Your task to perform on an android device: add a label to a message in the gmail app Image 0: 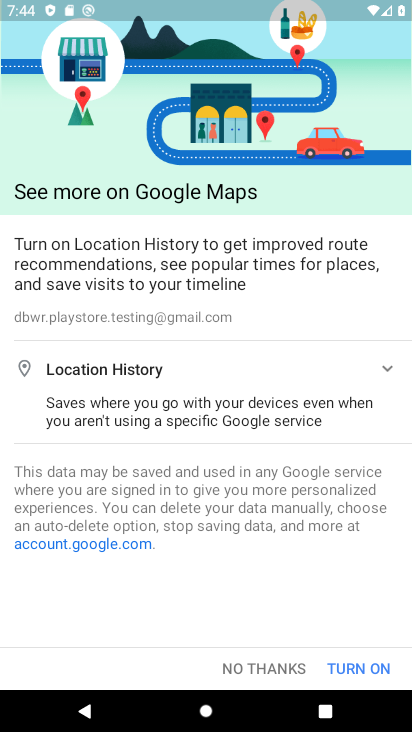
Step 0: press home button
Your task to perform on an android device: add a label to a message in the gmail app Image 1: 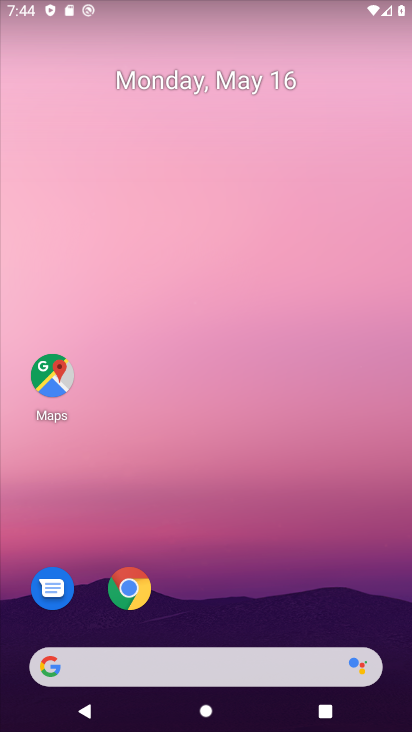
Step 1: drag from (362, 596) to (379, 105)
Your task to perform on an android device: add a label to a message in the gmail app Image 2: 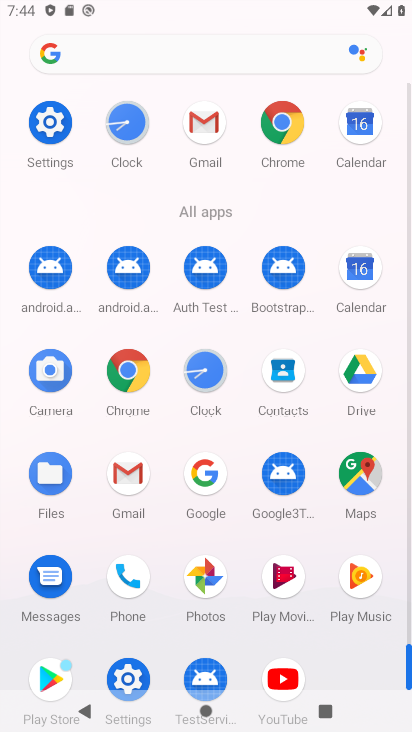
Step 2: click (125, 486)
Your task to perform on an android device: add a label to a message in the gmail app Image 3: 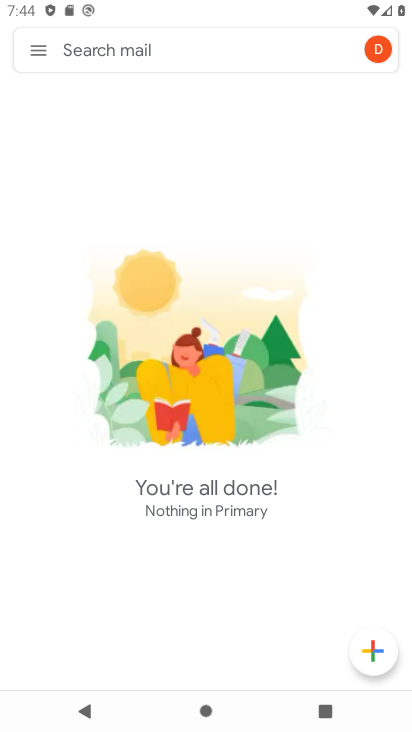
Step 3: click (35, 53)
Your task to perform on an android device: add a label to a message in the gmail app Image 4: 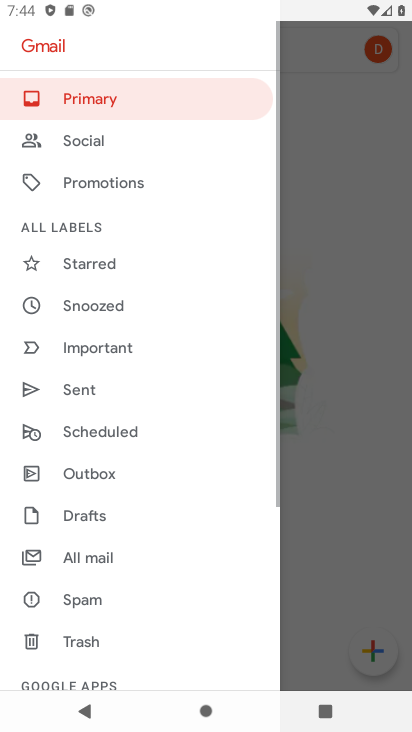
Step 4: drag from (200, 568) to (221, 405)
Your task to perform on an android device: add a label to a message in the gmail app Image 5: 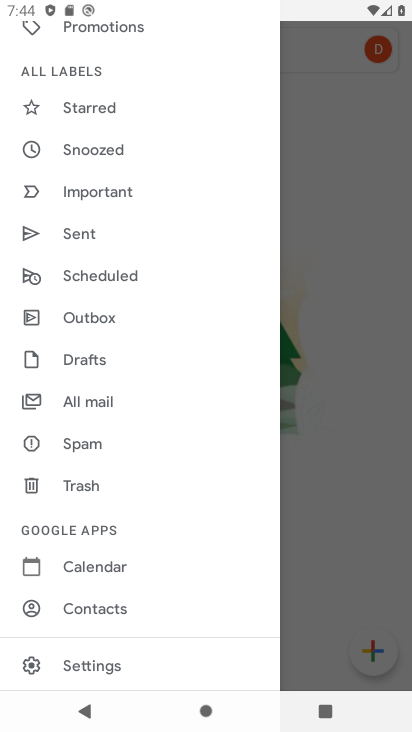
Step 5: drag from (213, 612) to (213, 448)
Your task to perform on an android device: add a label to a message in the gmail app Image 6: 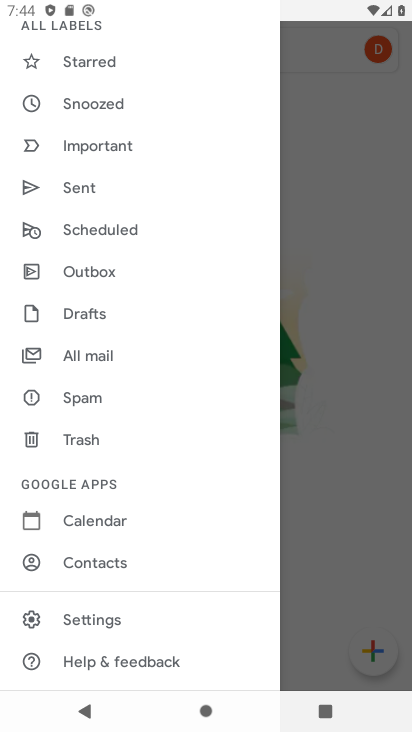
Step 6: drag from (209, 310) to (206, 442)
Your task to perform on an android device: add a label to a message in the gmail app Image 7: 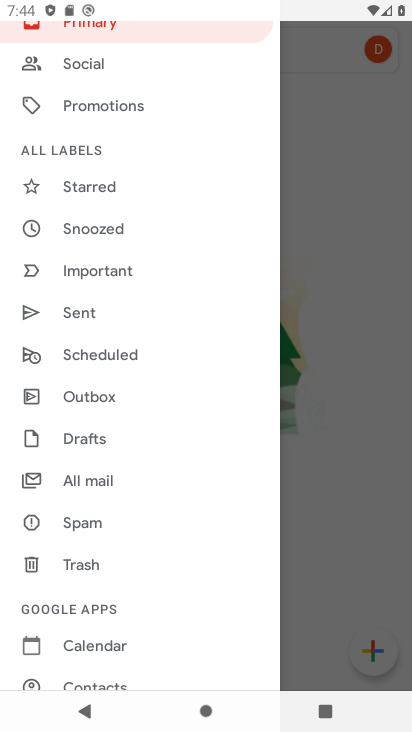
Step 7: drag from (216, 297) to (212, 423)
Your task to perform on an android device: add a label to a message in the gmail app Image 8: 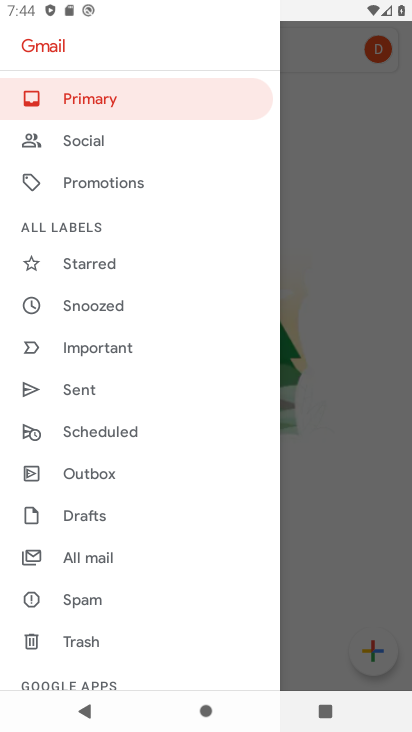
Step 8: drag from (225, 248) to (223, 398)
Your task to perform on an android device: add a label to a message in the gmail app Image 9: 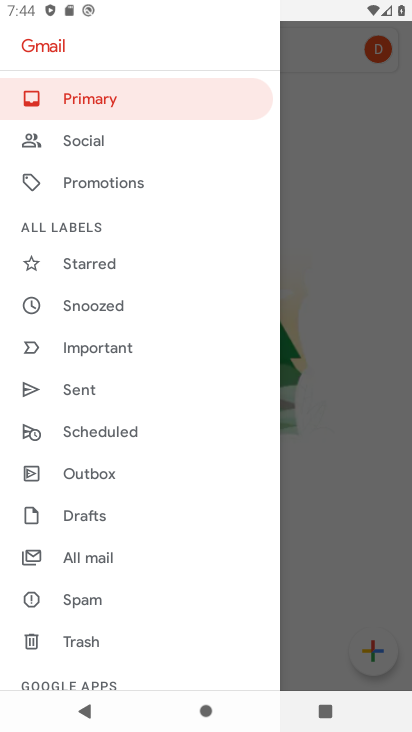
Step 9: click (151, 95)
Your task to perform on an android device: add a label to a message in the gmail app Image 10: 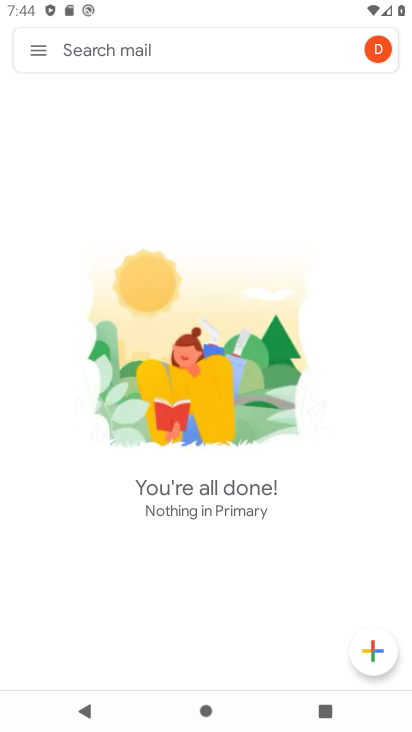
Step 10: task complete